Your task to perform on an android device: turn on translation in the chrome app Image 0: 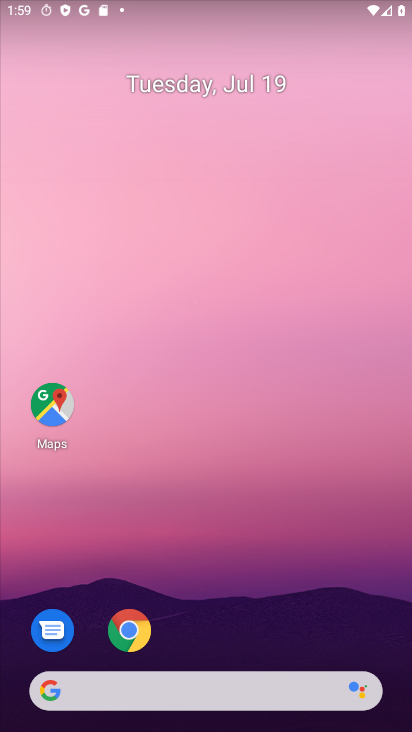
Step 0: click (132, 620)
Your task to perform on an android device: turn on translation in the chrome app Image 1: 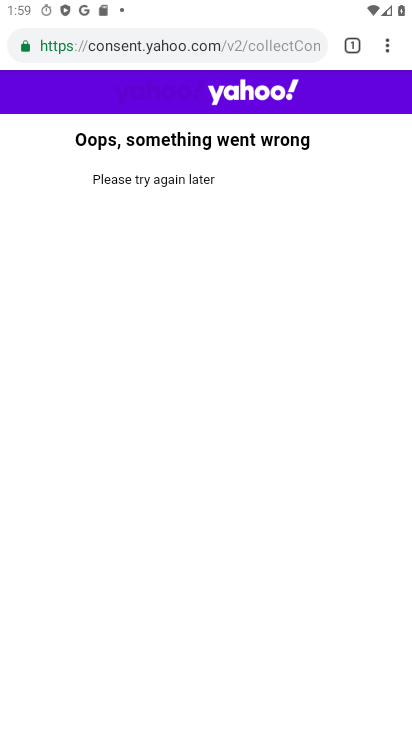
Step 1: click (384, 35)
Your task to perform on an android device: turn on translation in the chrome app Image 2: 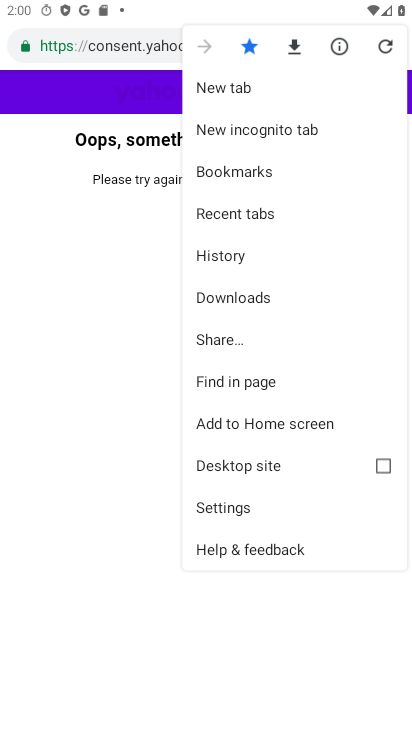
Step 2: click (206, 500)
Your task to perform on an android device: turn on translation in the chrome app Image 3: 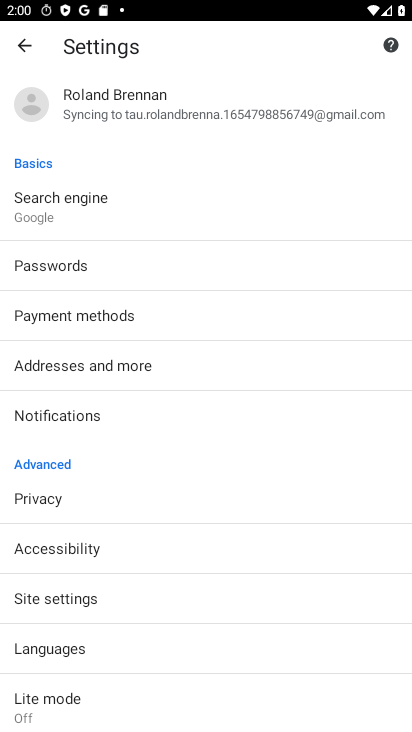
Step 3: click (60, 638)
Your task to perform on an android device: turn on translation in the chrome app Image 4: 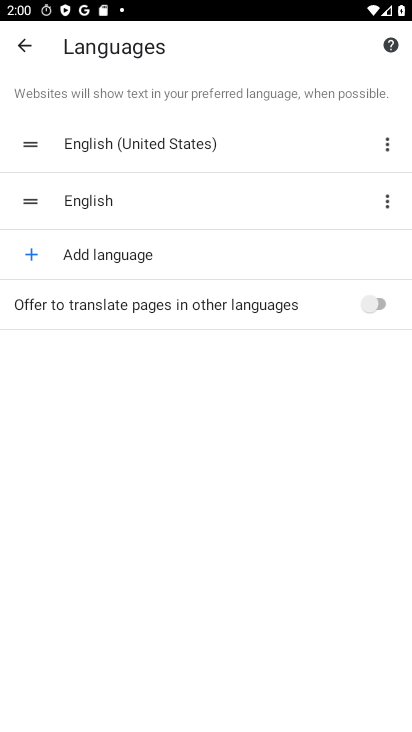
Step 4: click (357, 293)
Your task to perform on an android device: turn on translation in the chrome app Image 5: 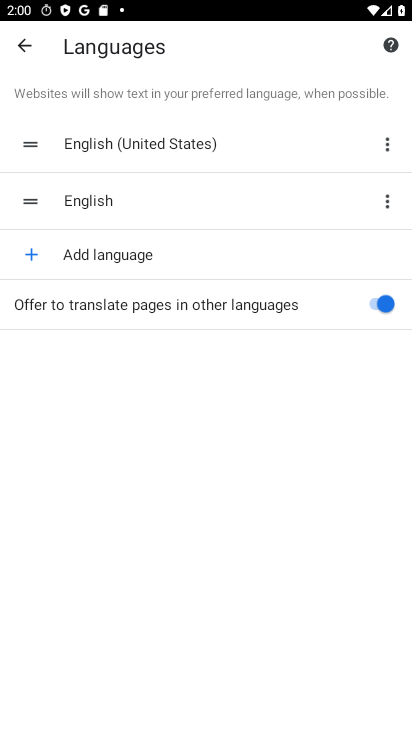
Step 5: task complete